Your task to perform on an android device: Open Yahoo.com Image 0: 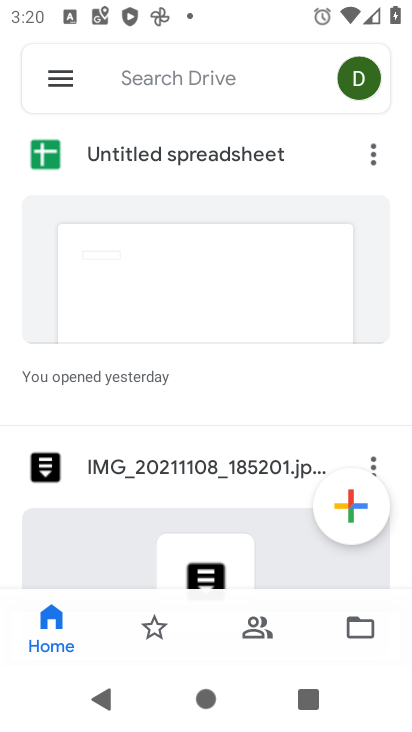
Step 0: press home button
Your task to perform on an android device: Open Yahoo.com Image 1: 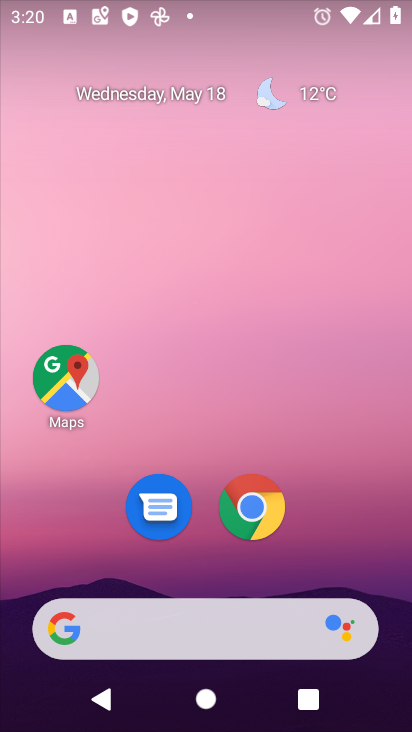
Step 1: click (254, 504)
Your task to perform on an android device: Open Yahoo.com Image 2: 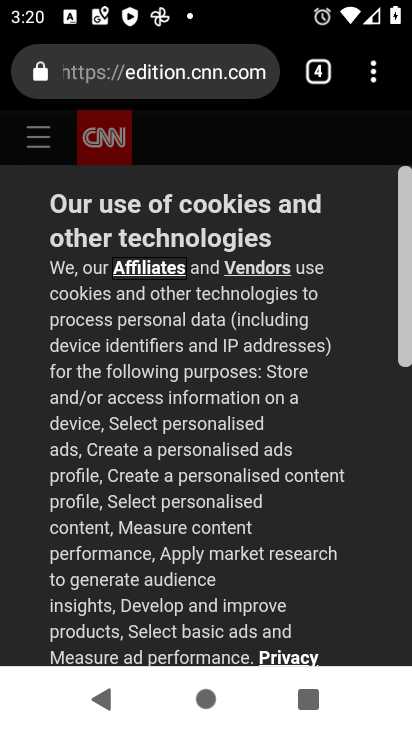
Step 2: click (136, 71)
Your task to perform on an android device: Open Yahoo.com Image 3: 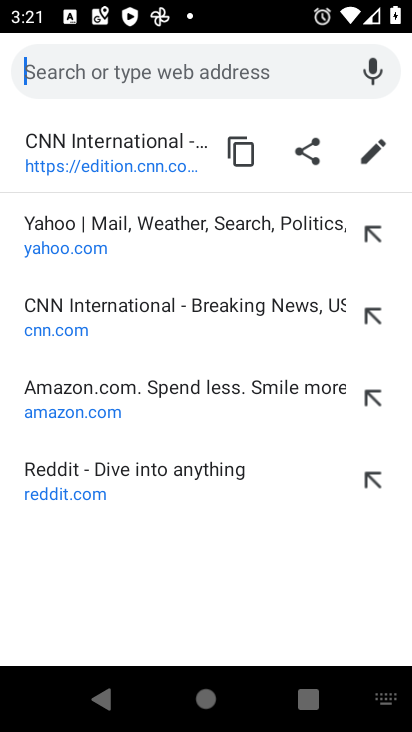
Step 3: type "yahaoo.com"
Your task to perform on an android device: Open Yahoo.com Image 4: 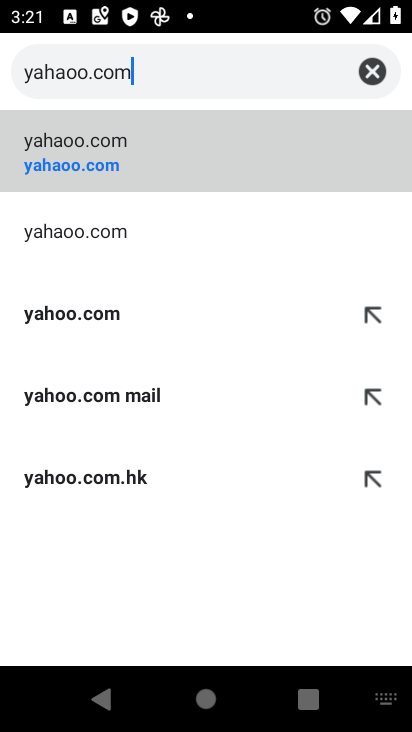
Step 4: click (81, 139)
Your task to perform on an android device: Open Yahoo.com Image 5: 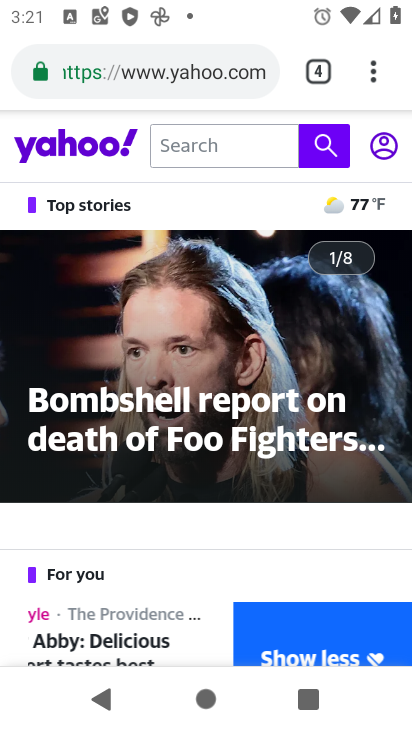
Step 5: task complete